Your task to perform on an android device: Go to Android settings Image 0: 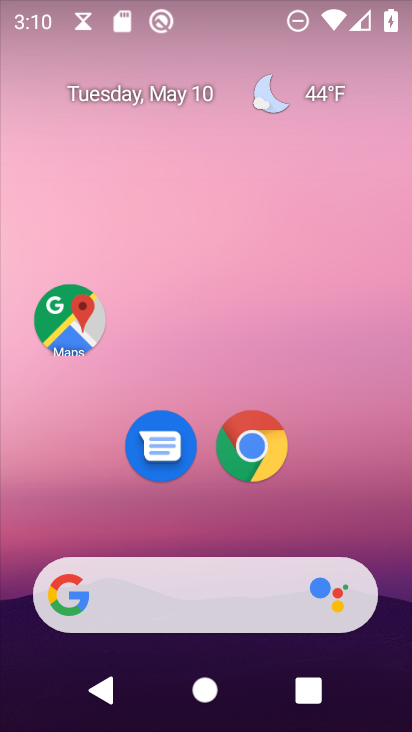
Step 0: drag from (355, 483) to (393, 2)
Your task to perform on an android device: Go to Android settings Image 1: 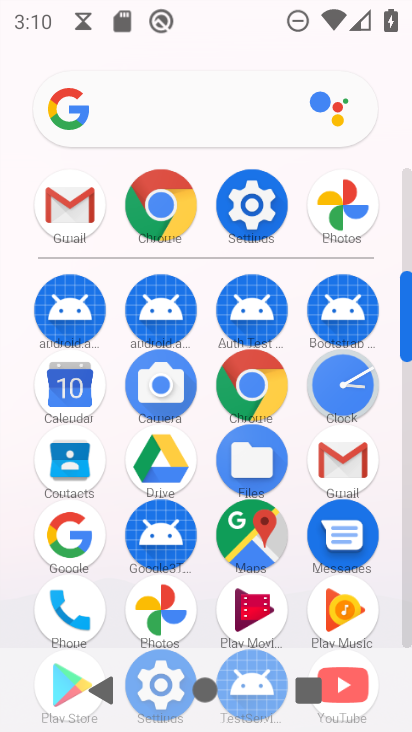
Step 1: click (268, 204)
Your task to perform on an android device: Go to Android settings Image 2: 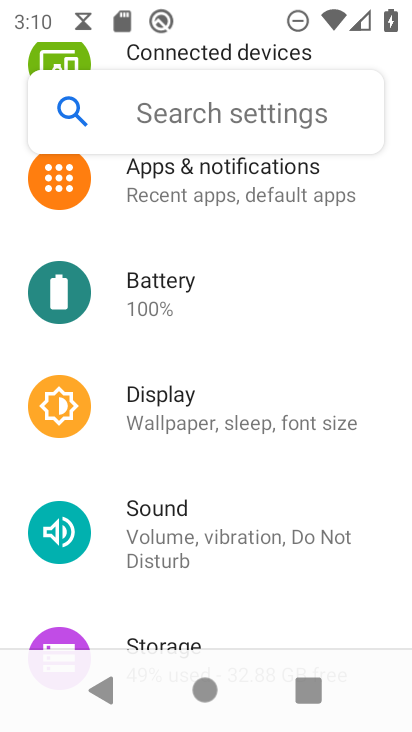
Step 2: drag from (227, 560) to (249, 157)
Your task to perform on an android device: Go to Android settings Image 3: 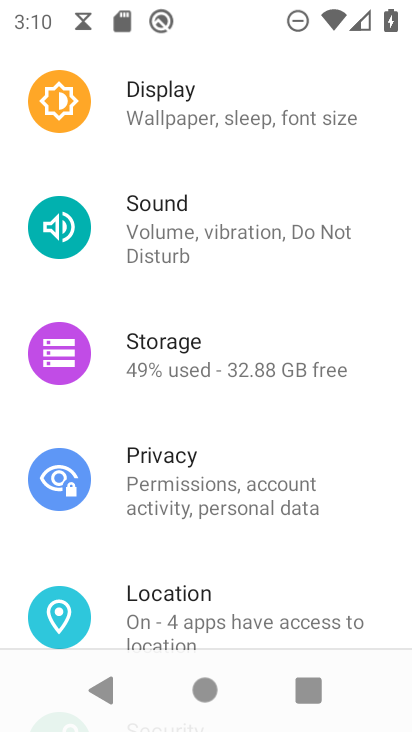
Step 3: drag from (201, 604) to (262, 181)
Your task to perform on an android device: Go to Android settings Image 4: 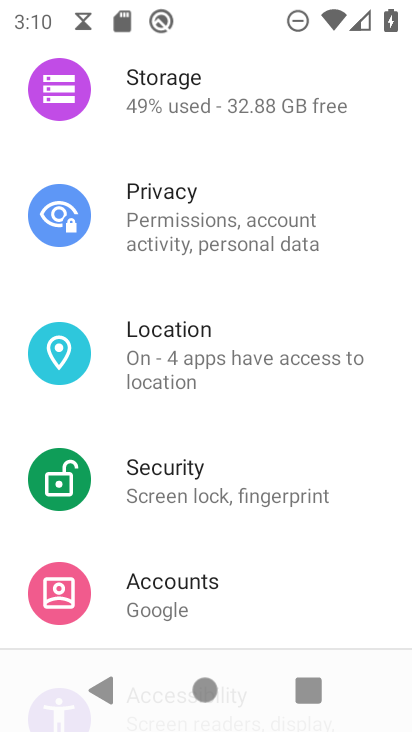
Step 4: drag from (216, 559) to (316, 127)
Your task to perform on an android device: Go to Android settings Image 5: 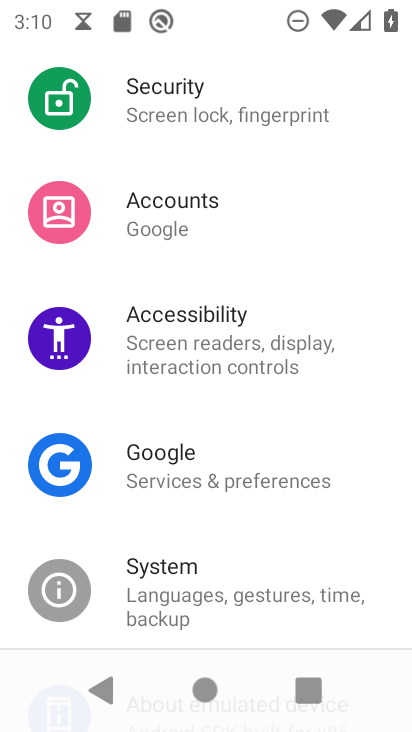
Step 5: drag from (271, 558) to (359, 85)
Your task to perform on an android device: Go to Android settings Image 6: 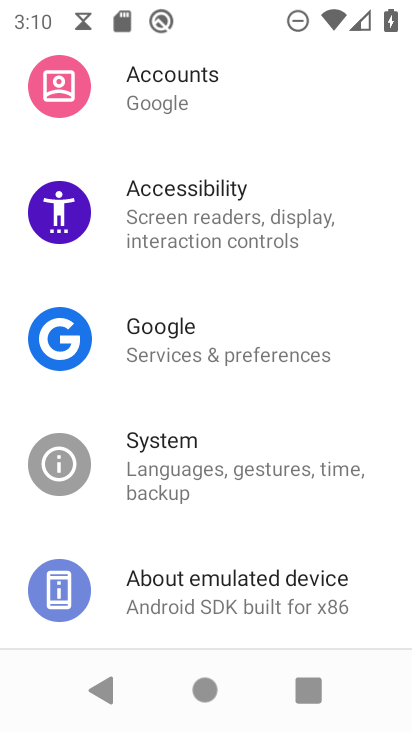
Step 6: drag from (241, 524) to (257, 219)
Your task to perform on an android device: Go to Android settings Image 7: 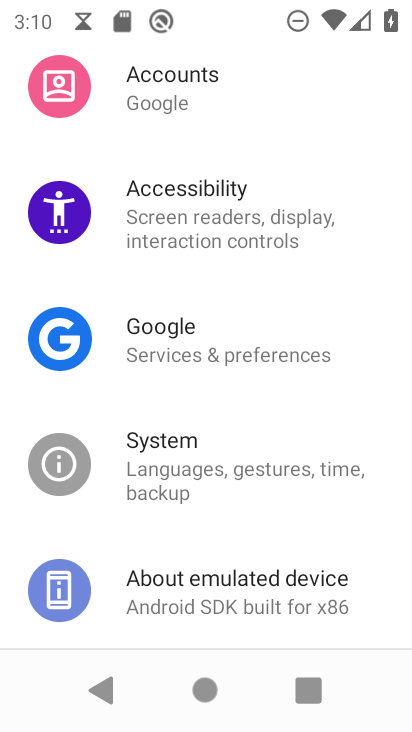
Step 7: click (269, 617)
Your task to perform on an android device: Go to Android settings Image 8: 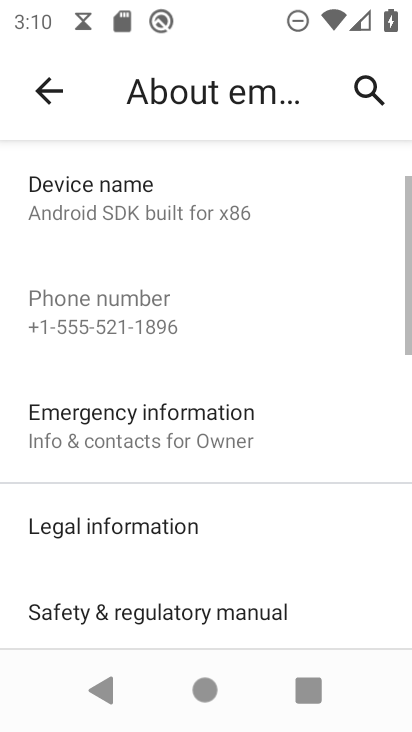
Step 8: task complete